Your task to perform on an android device: change notifications settings Image 0: 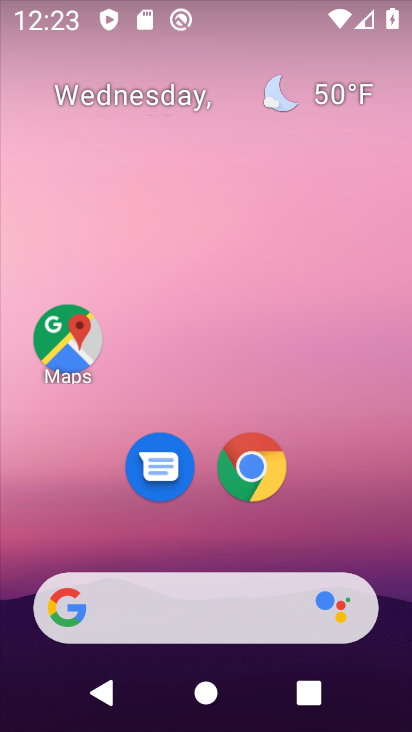
Step 0: drag from (198, 377) to (205, 0)
Your task to perform on an android device: change notifications settings Image 1: 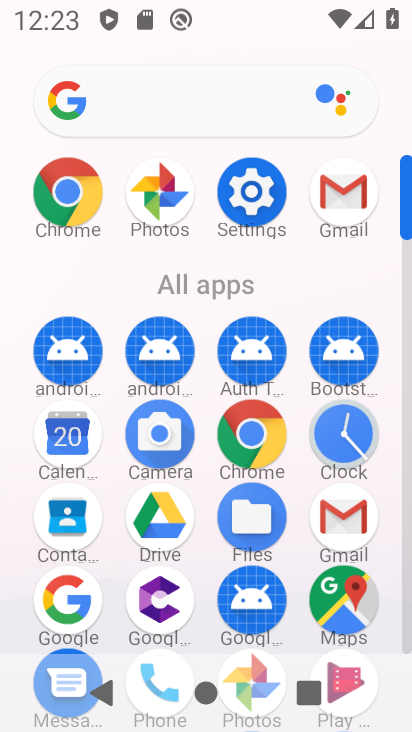
Step 1: click (241, 203)
Your task to perform on an android device: change notifications settings Image 2: 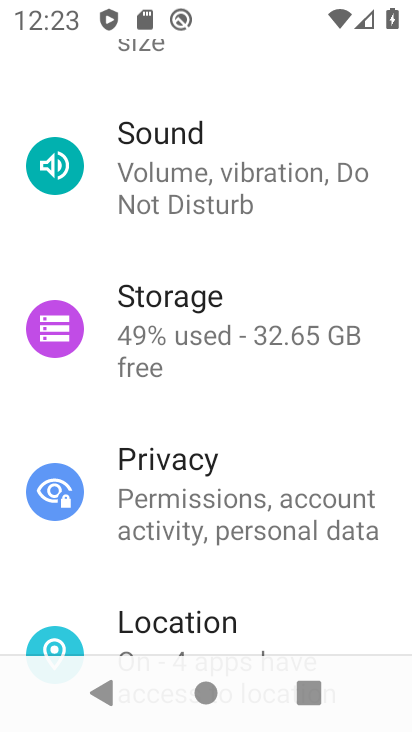
Step 2: drag from (232, 234) to (245, 542)
Your task to perform on an android device: change notifications settings Image 3: 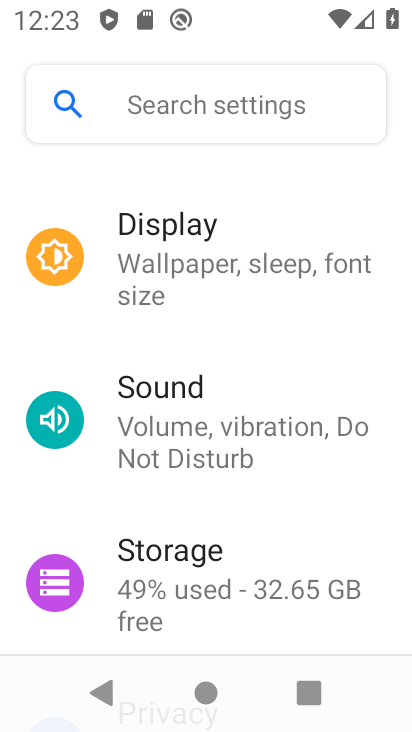
Step 3: drag from (255, 236) to (248, 573)
Your task to perform on an android device: change notifications settings Image 4: 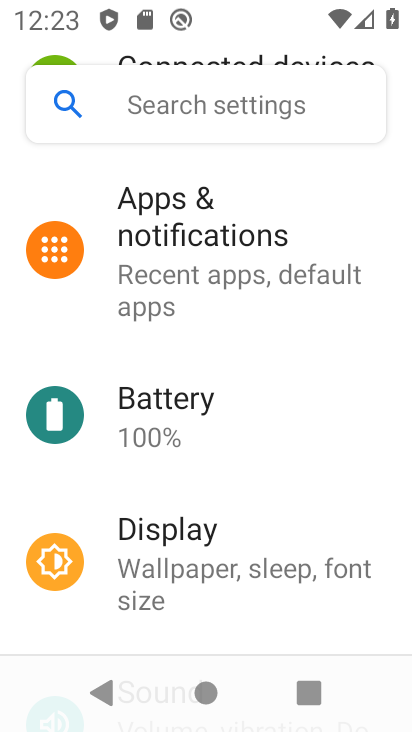
Step 4: click (239, 255)
Your task to perform on an android device: change notifications settings Image 5: 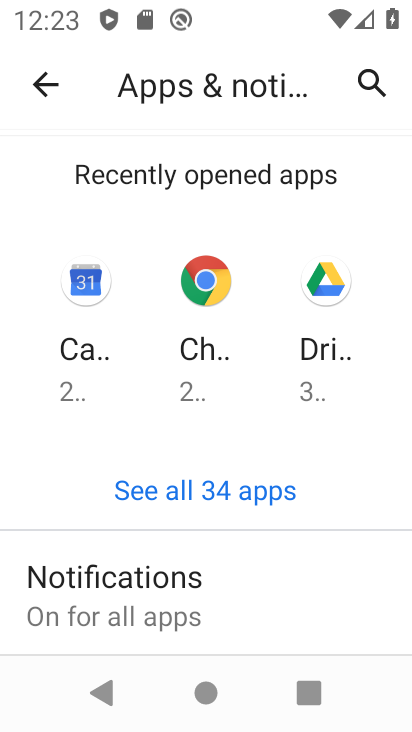
Step 5: click (213, 594)
Your task to perform on an android device: change notifications settings Image 6: 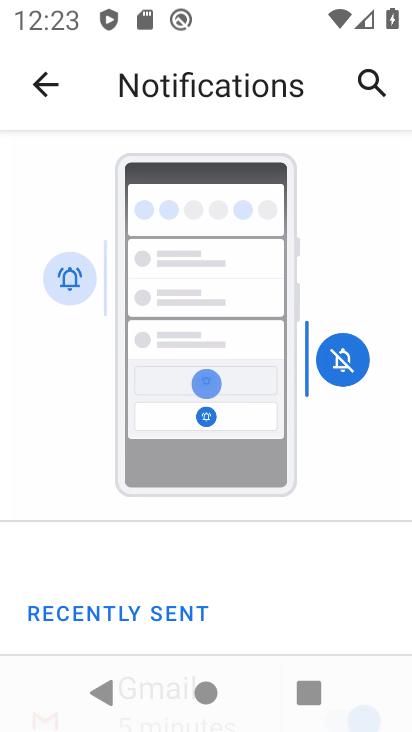
Step 6: drag from (251, 645) to (266, 194)
Your task to perform on an android device: change notifications settings Image 7: 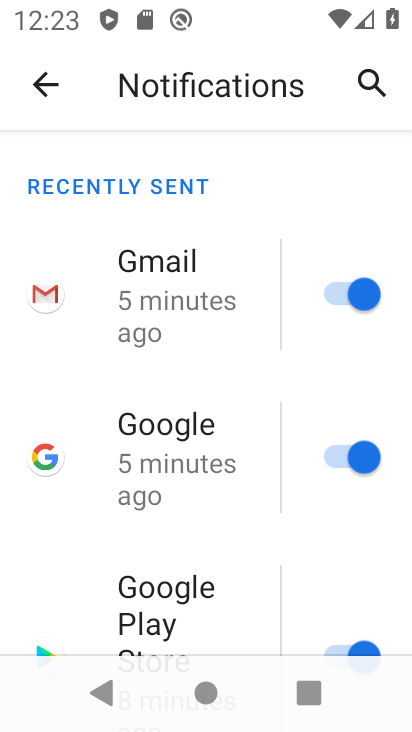
Step 7: drag from (245, 417) to (272, 85)
Your task to perform on an android device: change notifications settings Image 8: 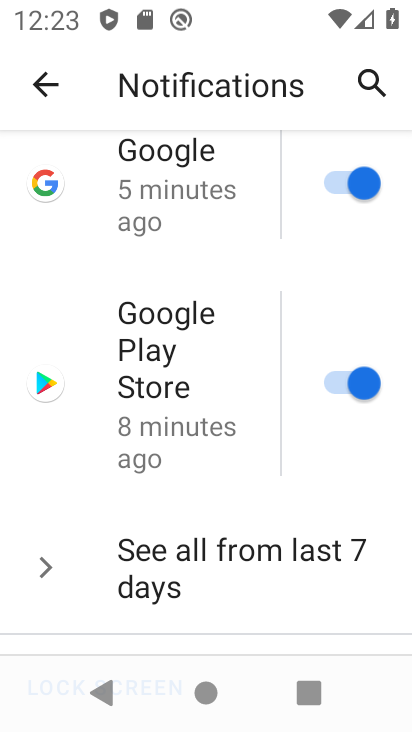
Step 8: click (350, 189)
Your task to perform on an android device: change notifications settings Image 9: 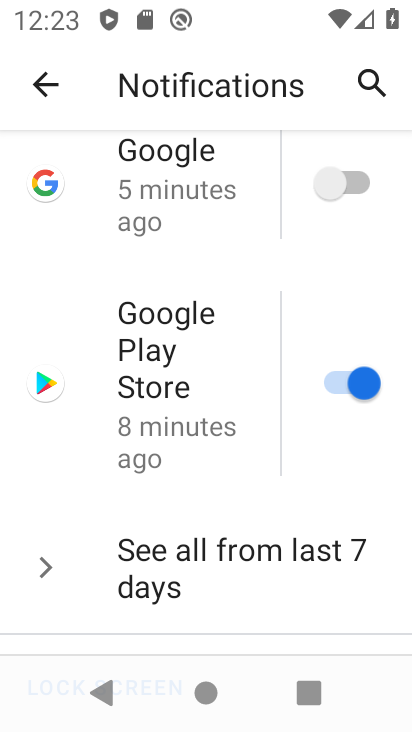
Step 9: task complete